Your task to perform on an android device: install app "Adobe Acrobat Reader" Image 0: 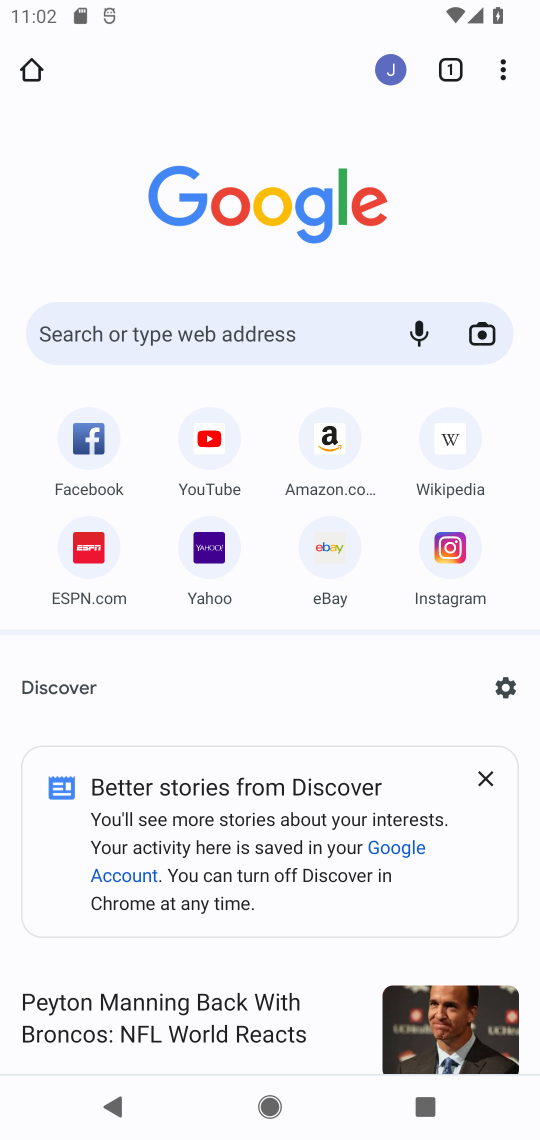
Step 0: press home button
Your task to perform on an android device: install app "Adobe Acrobat Reader" Image 1: 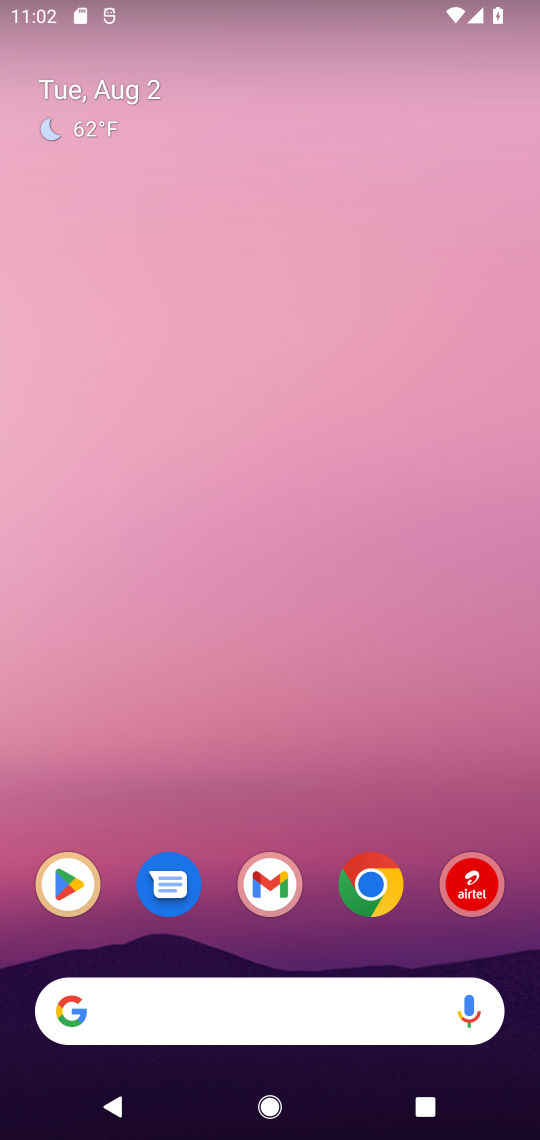
Step 1: click (69, 893)
Your task to perform on an android device: install app "Adobe Acrobat Reader" Image 2: 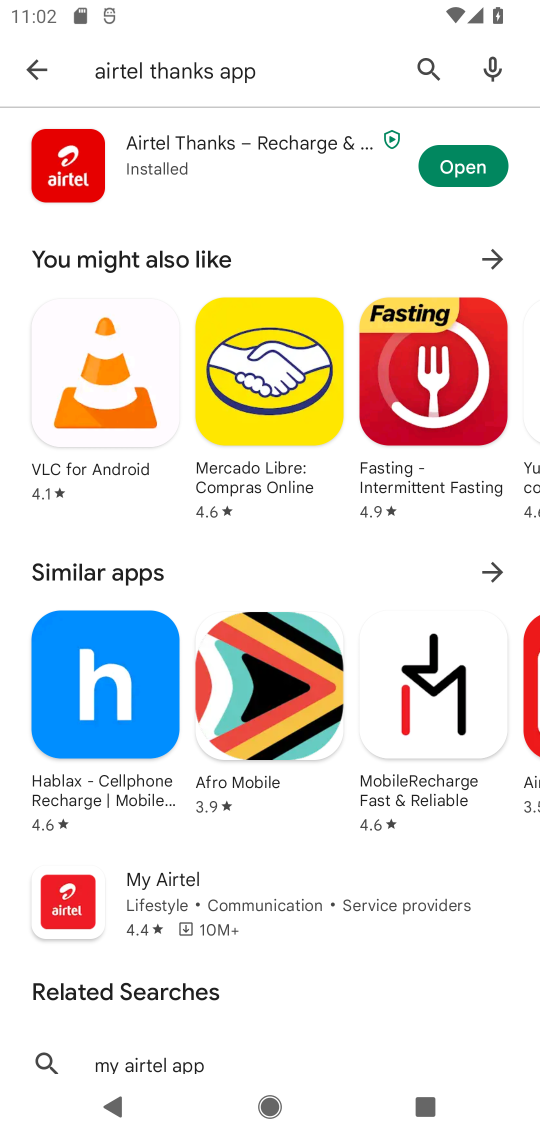
Step 2: click (204, 72)
Your task to perform on an android device: install app "Adobe Acrobat Reader" Image 3: 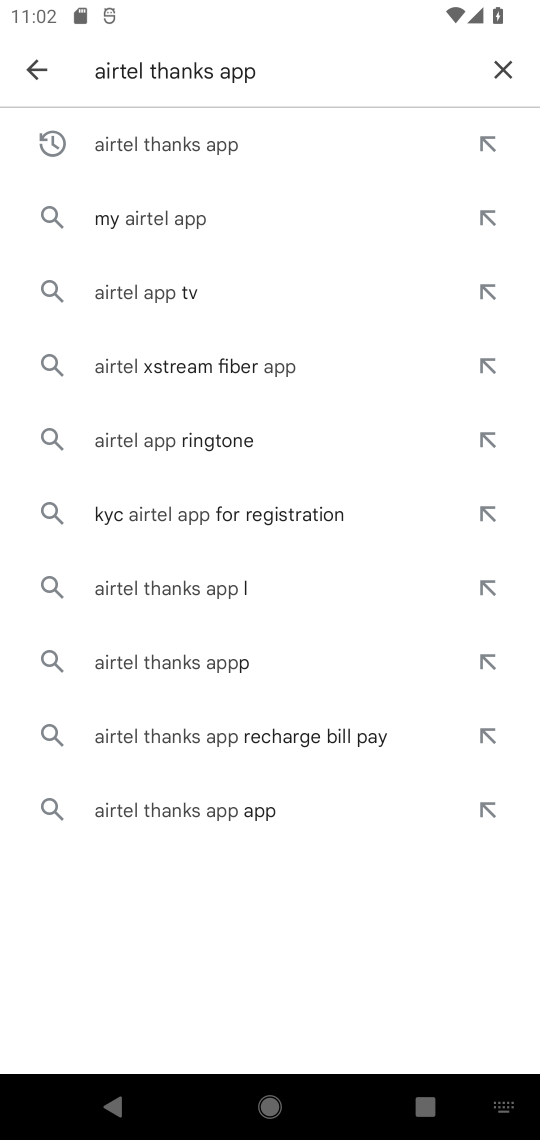
Step 3: click (494, 70)
Your task to perform on an android device: install app "Adobe Acrobat Reader" Image 4: 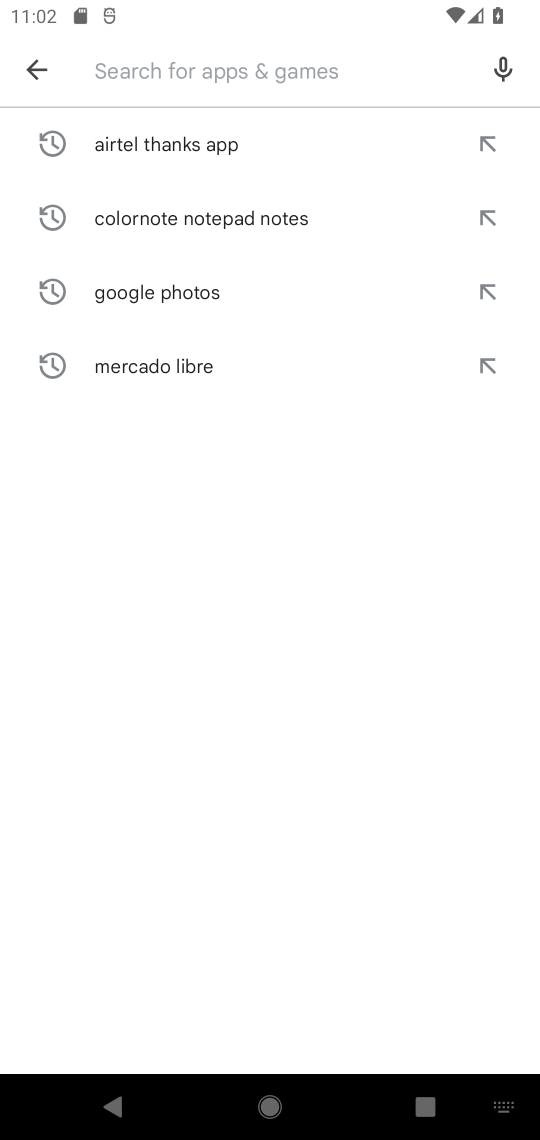
Step 4: type "Adobe Acrobat Reader"
Your task to perform on an android device: install app "Adobe Acrobat Reader" Image 5: 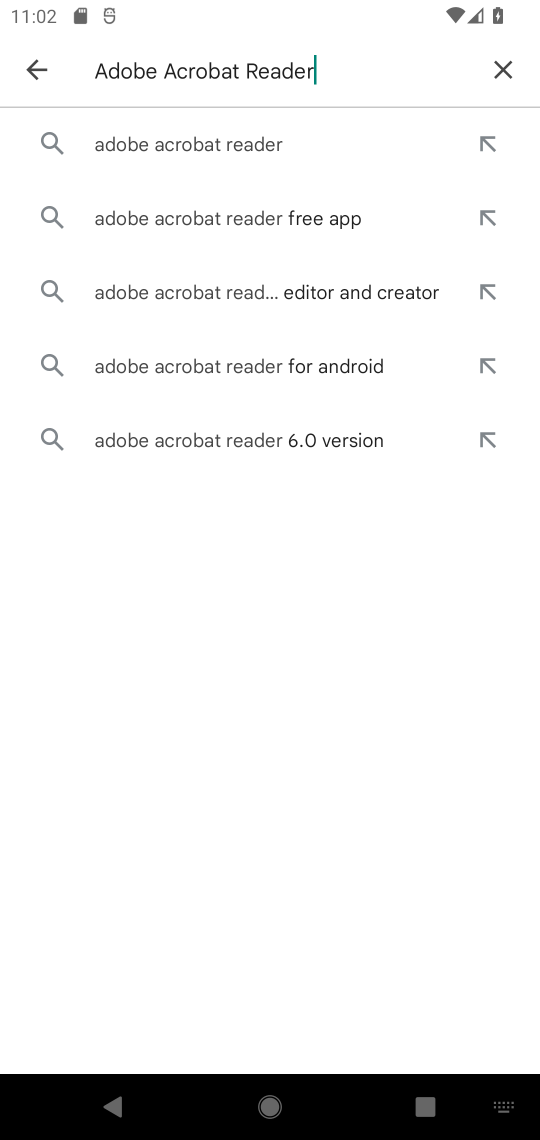
Step 5: click (193, 149)
Your task to perform on an android device: install app "Adobe Acrobat Reader" Image 6: 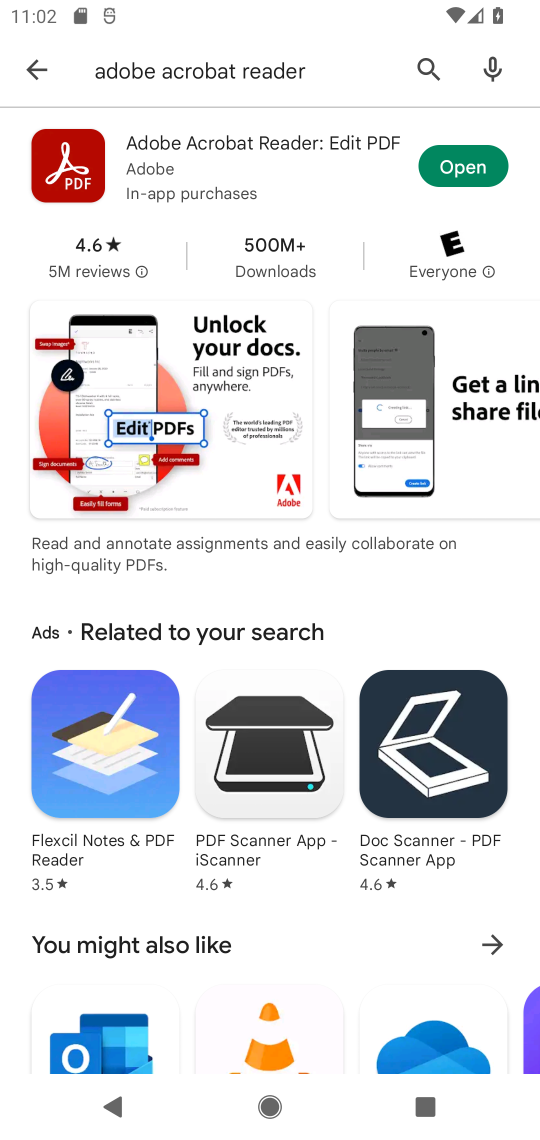
Step 6: click (64, 173)
Your task to perform on an android device: install app "Adobe Acrobat Reader" Image 7: 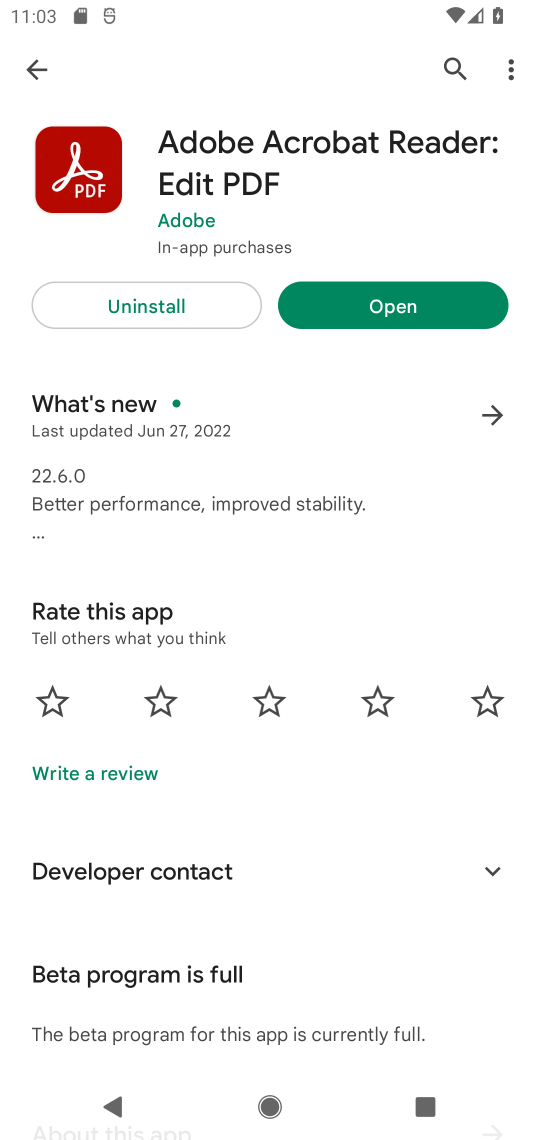
Step 7: task complete